Your task to perform on an android device: Go to Google maps Image 0: 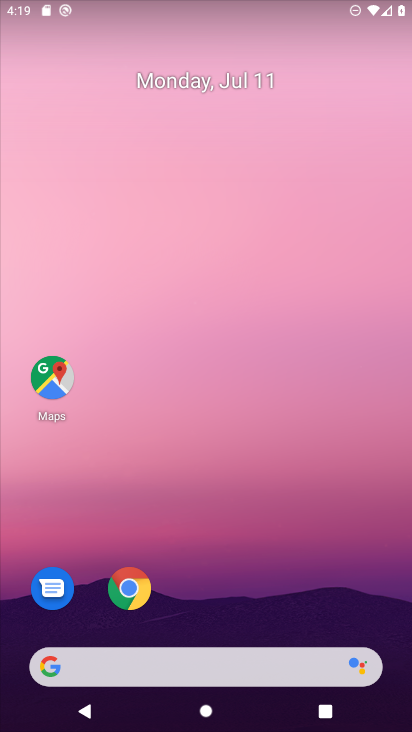
Step 0: click (44, 381)
Your task to perform on an android device: Go to Google maps Image 1: 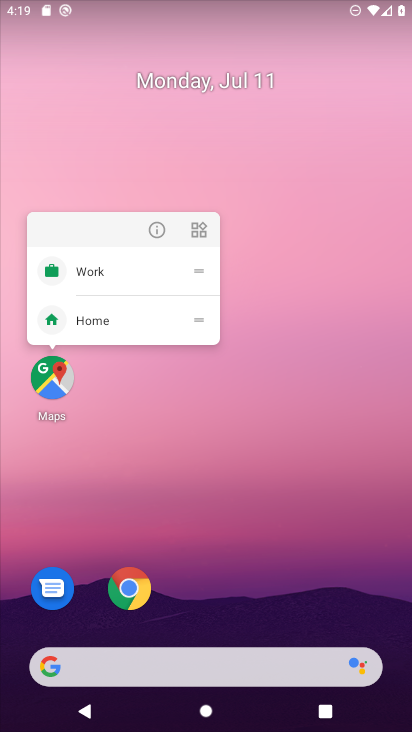
Step 1: click (45, 382)
Your task to perform on an android device: Go to Google maps Image 2: 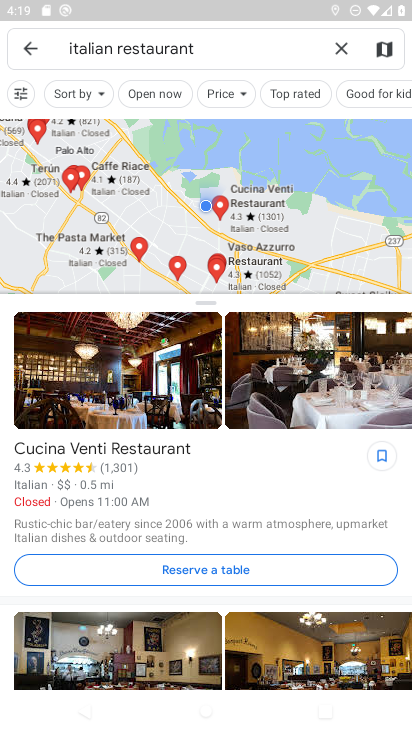
Step 2: task complete